Your task to perform on an android device: read, delete, or share a saved page in the chrome app Image 0: 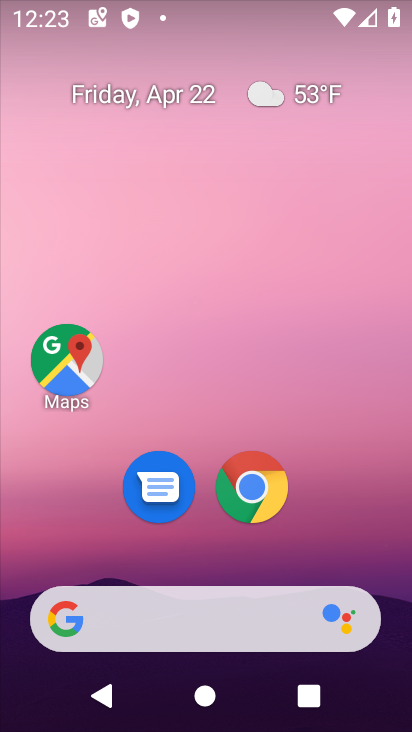
Step 0: click (257, 491)
Your task to perform on an android device: read, delete, or share a saved page in the chrome app Image 1: 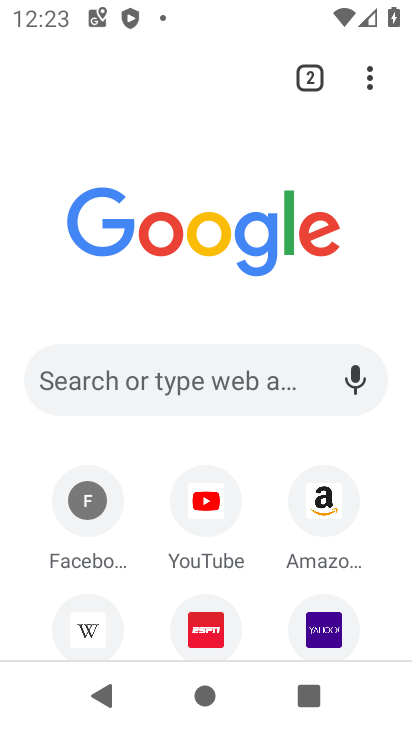
Step 1: task complete